Your task to perform on an android device: Show me recent news Image 0: 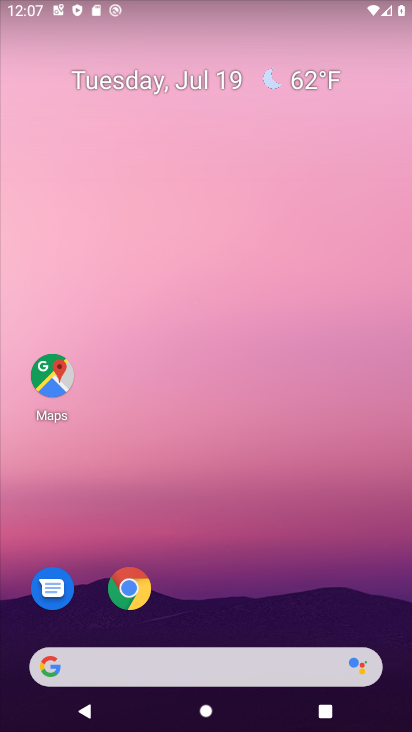
Step 0: drag from (260, 575) to (267, 192)
Your task to perform on an android device: Show me recent news Image 1: 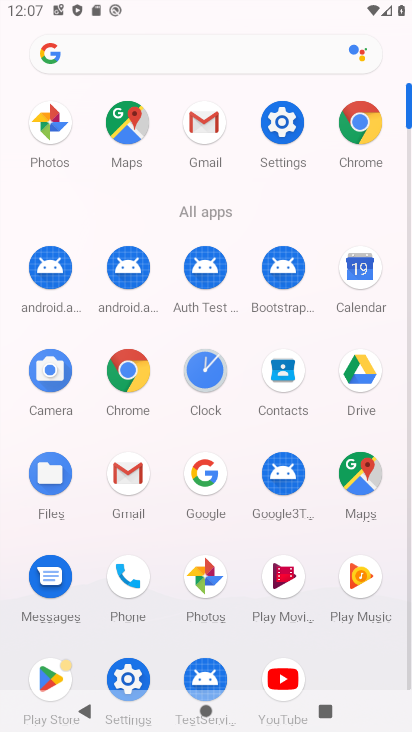
Step 1: click (149, 62)
Your task to perform on an android device: Show me recent news Image 2: 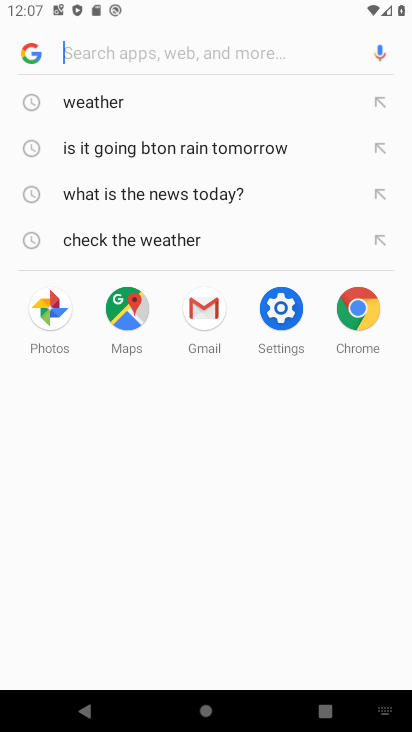
Step 2: type "recent news"
Your task to perform on an android device: Show me recent news Image 3: 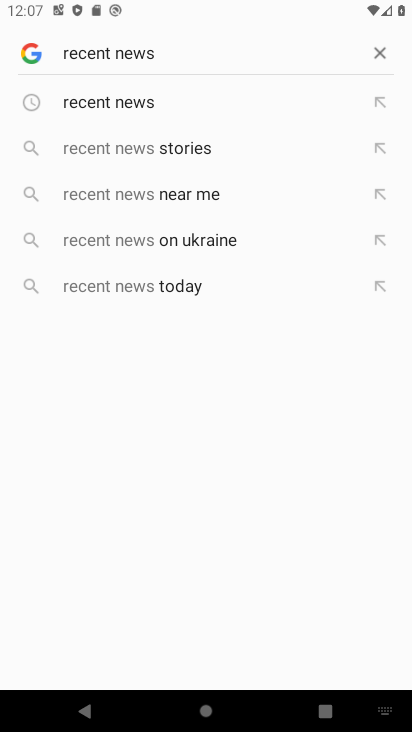
Step 3: click (125, 86)
Your task to perform on an android device: Show me recent news Image 4: 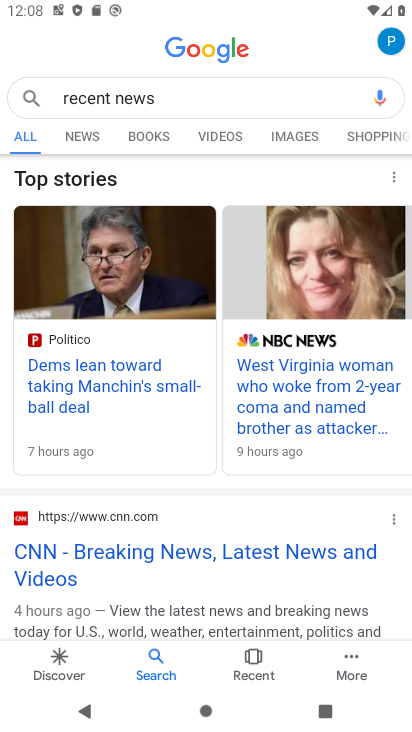
Step 4: click (65, 141)
Your task to perform on an android device: Show me recent news Image 5: 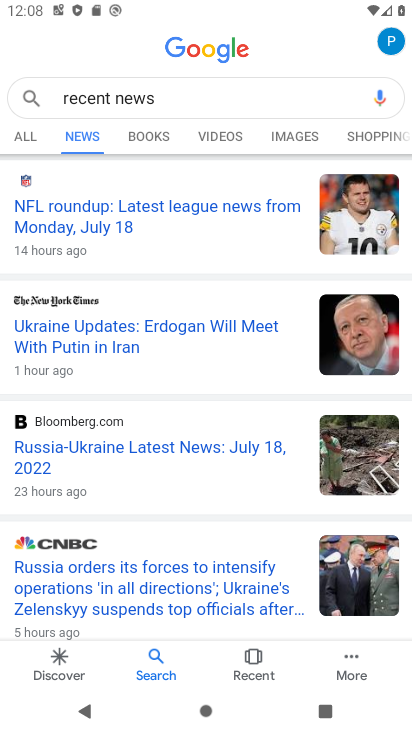
Step 5: task complete